Your task to perform on an android device: check battery use Image 0: 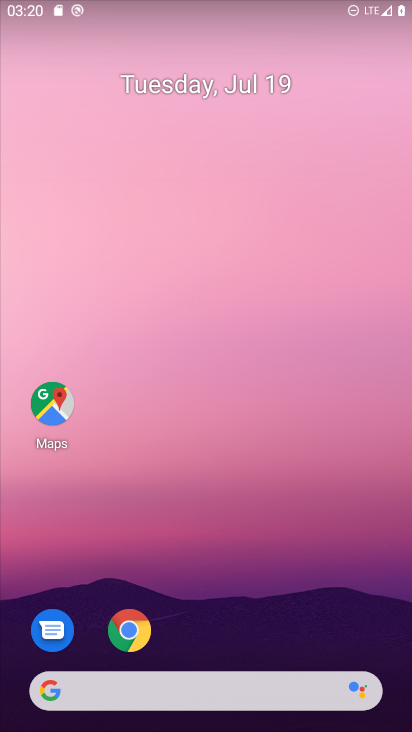
Step 0: drag from (380, 659) to (324, 50)
Your task to perform on an android device: check battery use Image 1: 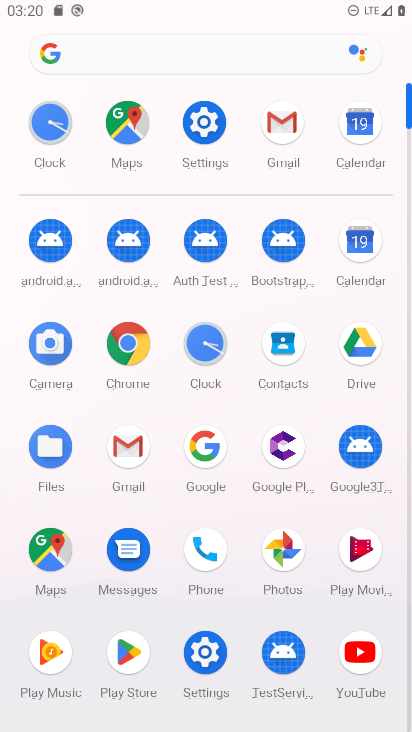
Step 1: click (202, 652)
Your task to perform on an android device: check battery use Image 2: 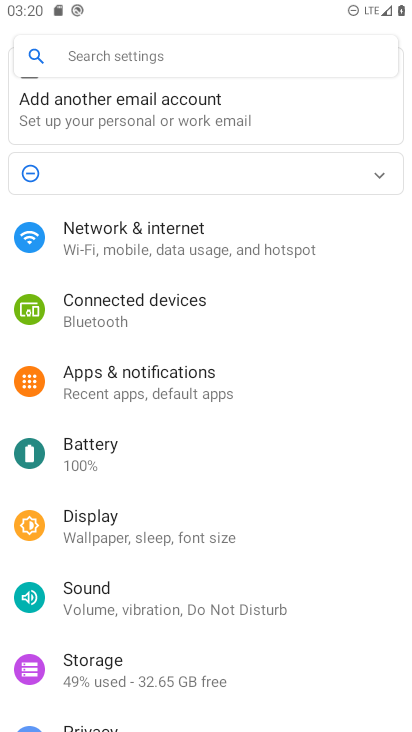
Step 2: click (88, 443)
Your task to perform on an android device: check battery use Image 3: 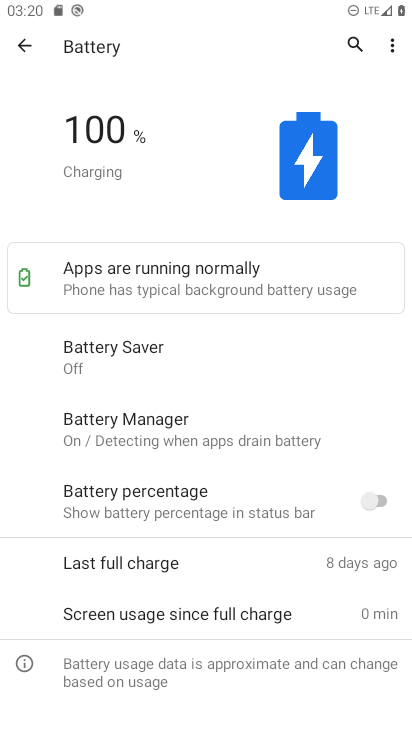
Step 3: click (392, 48)
Your task to perform on an android device: check battery use Image 4: 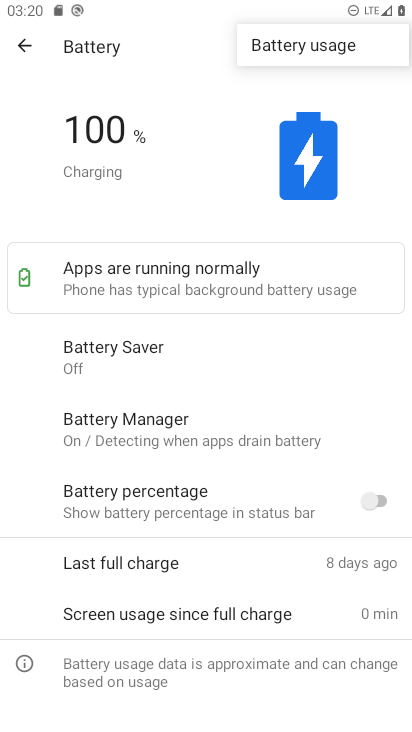
Step 4: click (290, 40)
Your task to perform on an android device: check battery use Image 5: 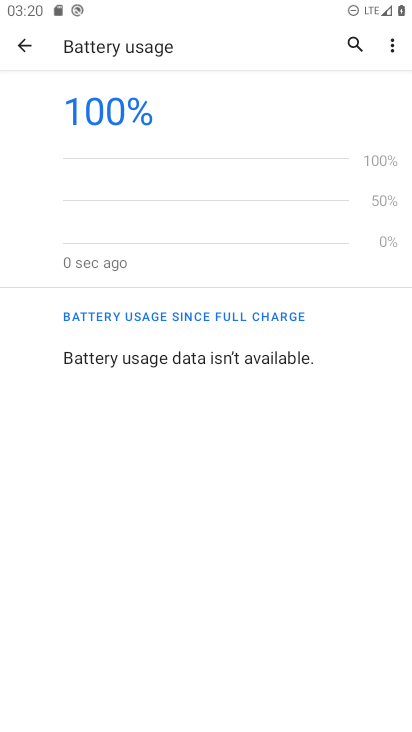
Step 5: task complete